Your task to perform on an android device: Open Google Image 0: 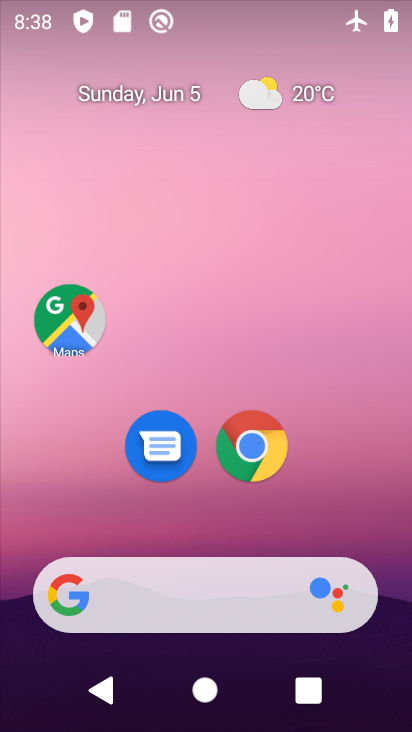
Step 0: drag from (205, 530) to (232, 155)
Your task to perform on an android device: Open Google Image 1: 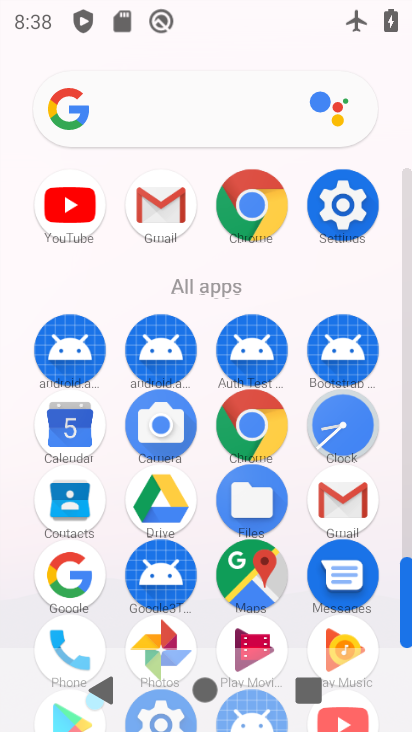
Step 1: click (81, 567)
Your task to perform on an android device: Open Google Image 2: 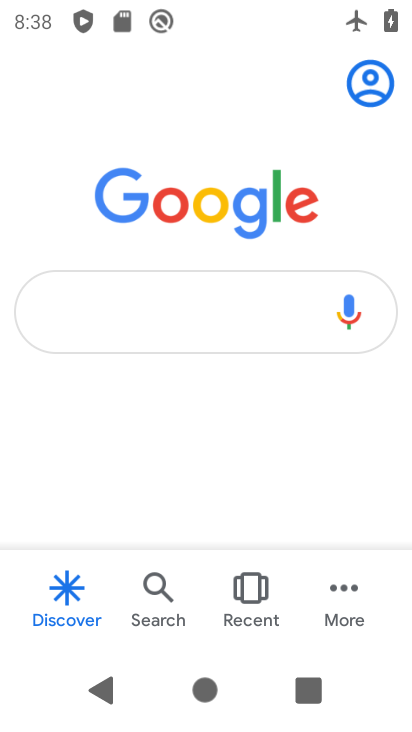
Step 2: task complete